Your task to perform on an android device: Turn on the flashlight Image 0: 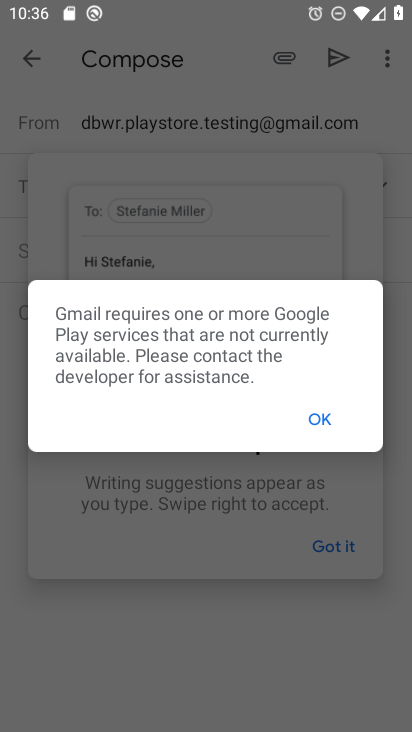
Step 0: press home button
Your task to perform on an android device: Turn on the flashlight Image 1: 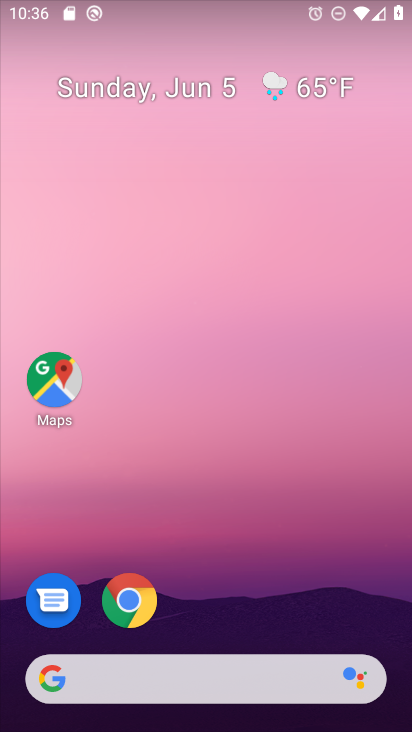
Step 1: drag from (385, 599) to (234, 26)
Your task to perform on an android device: Turn on the flashlight Image 2: 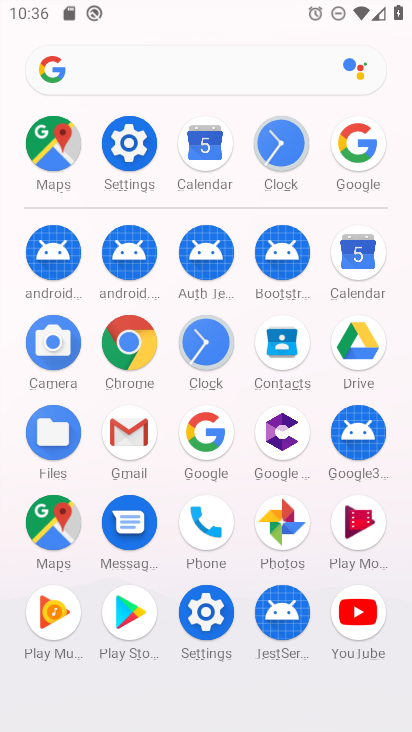
Step 2: click (134, 159)
Your task to perform on an android device: Turn on the flashlight Image 3: 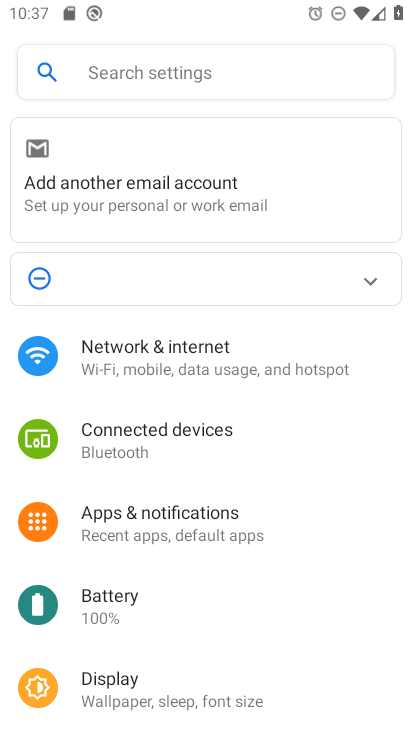
Step 3: task complete